Your task to perform on an android device: toggle show notifications on the lock screen Image 0: 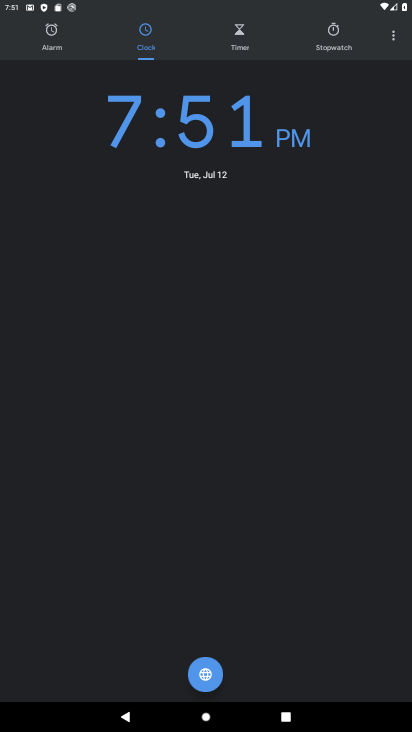
Step 0: press home button
Your task to perform on an android device: toggle show notifications on the lock screen Image 1: 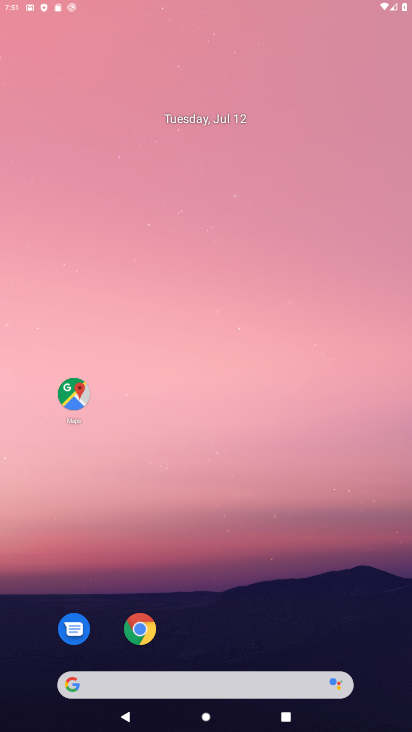
Step 1: drag from (304, 617) to (279, 105)
Your task to perform on an android device: toggle show notifications on the lock screen Image 2: 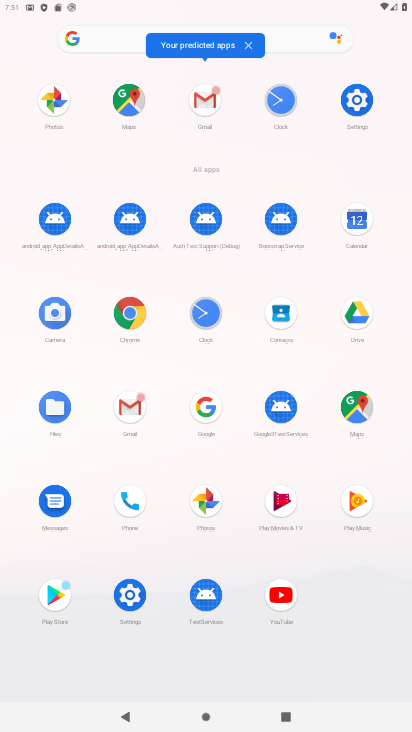
Step 2: click (360, 87)
Your task to perform on an android device: toggle show notifications on the lock screen Image 3: 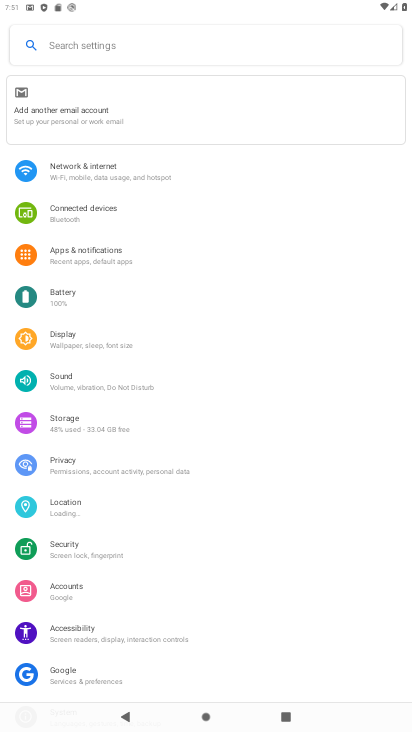
Step 3: click (103, 240)
Your task to perform on an android device: toggle show notifications on the lock screen Image 4: 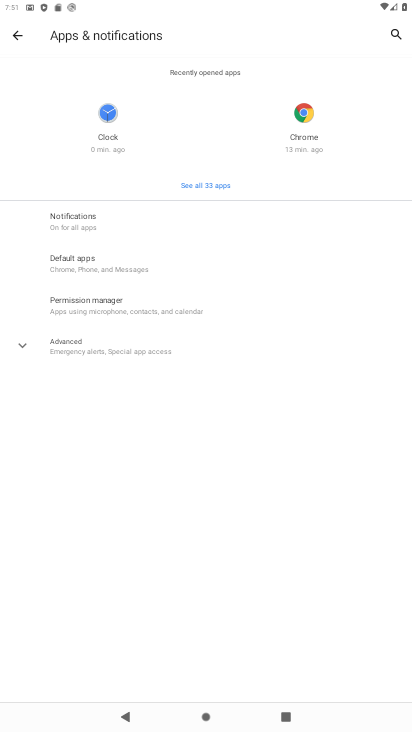
Step 4: click (103, 222)
Your task to perform on an android device: toggle show notifications on the lock screen Image 5: 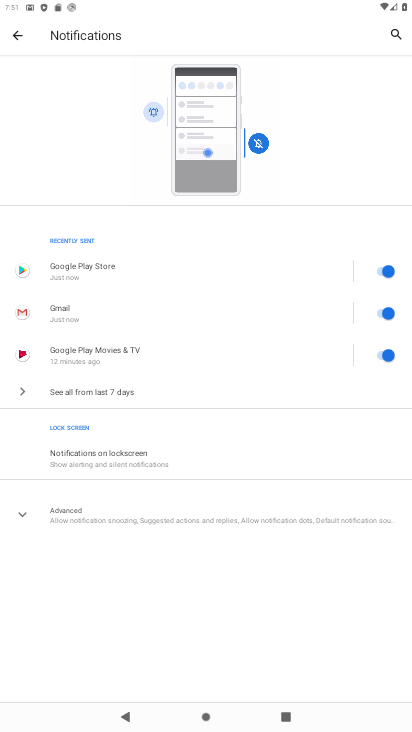
Step 5: click (141, 451)
Your task to perform on an android device: toggle show notifications on the lock screen Image 6: 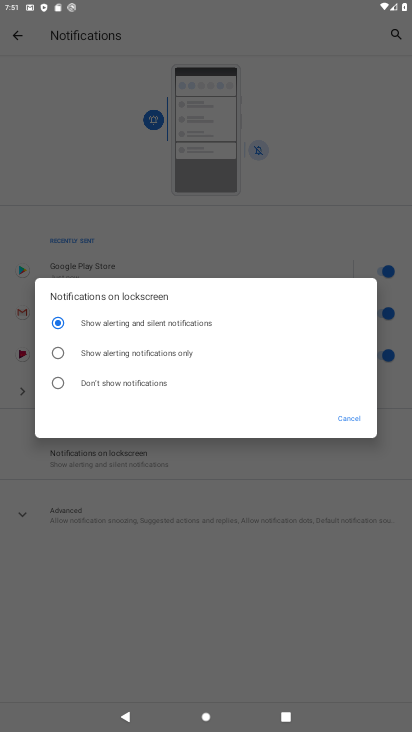
Step 6: click (95, 386)
Your task to perform on an android device: toggle show notifications on the lock screen Image 7: 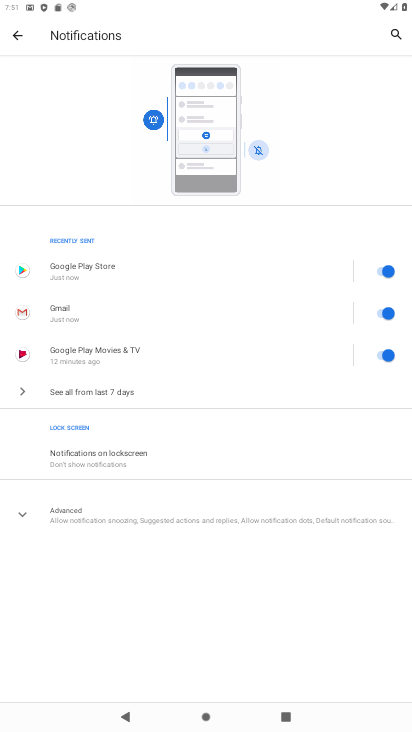
Step 7: task complete